Your task to perform on an android device: set the stopwatch Image 0: 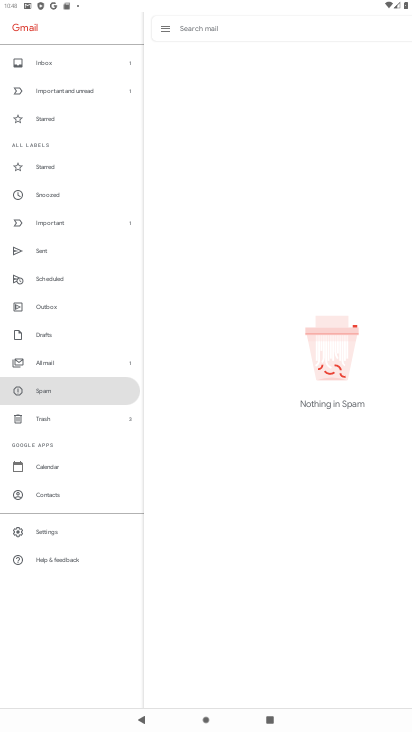
Step 0: press home button
Your task to perform on an android device: set the stopwatch Image 1: 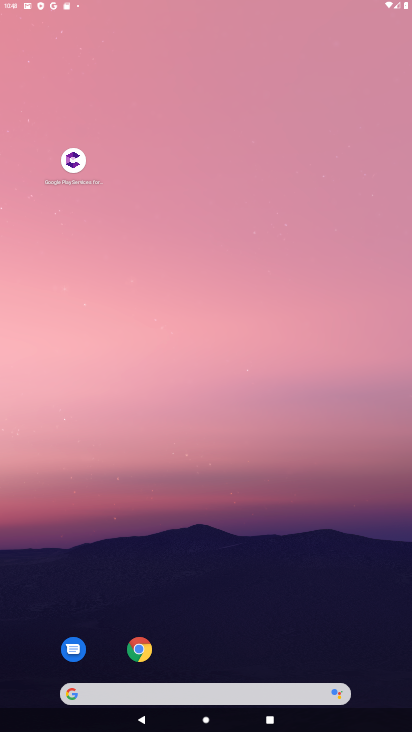
Step 1: drag from (251, 610) to (309, 42)
Your task to perform on an android device: set the stopwatch Image 2: 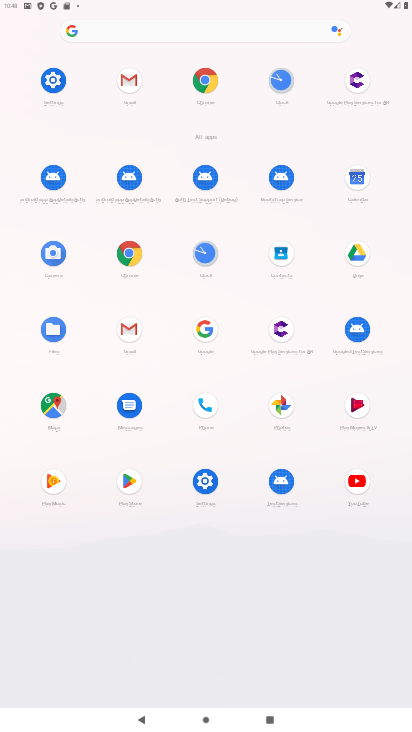
Step 2: click (186, 249)
Your task to perform on an android device: set the stopwatch Image 3: 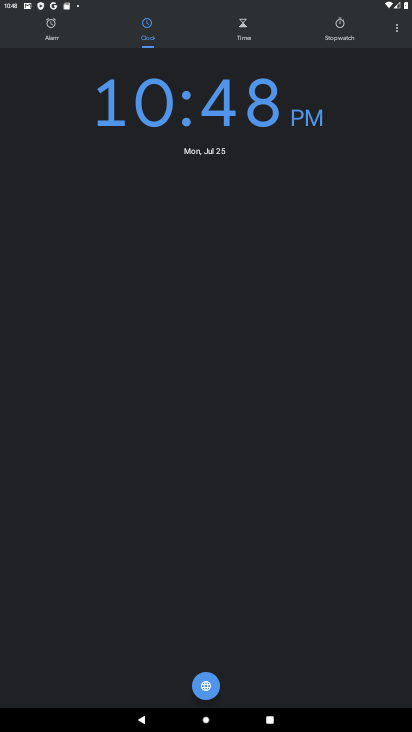
Step 3: click (332, 33)
Your task to perform on an android device: set the stopwatch Image 4: 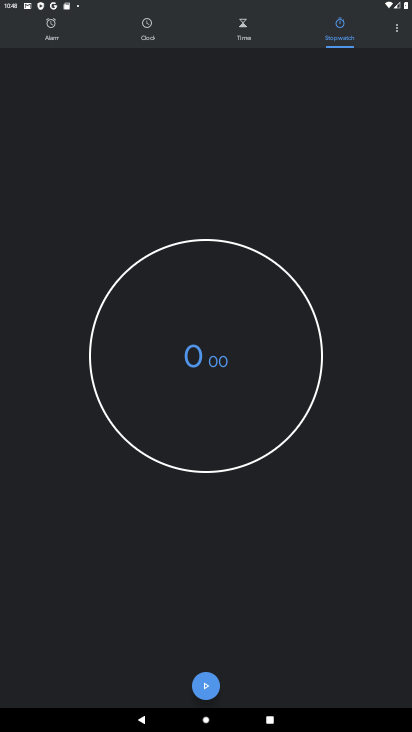
Step 4: click (190, 691)
Your task to perform on an android device: set the stopwatch Image 5: 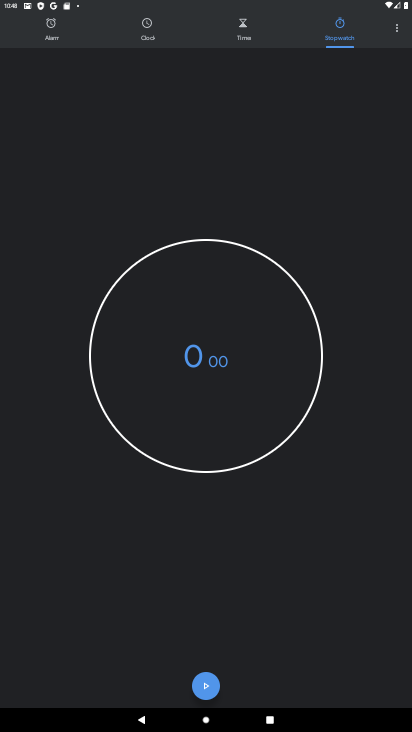
Step 5: task complete